Your task to perform on an android device: add a contact Image 0: 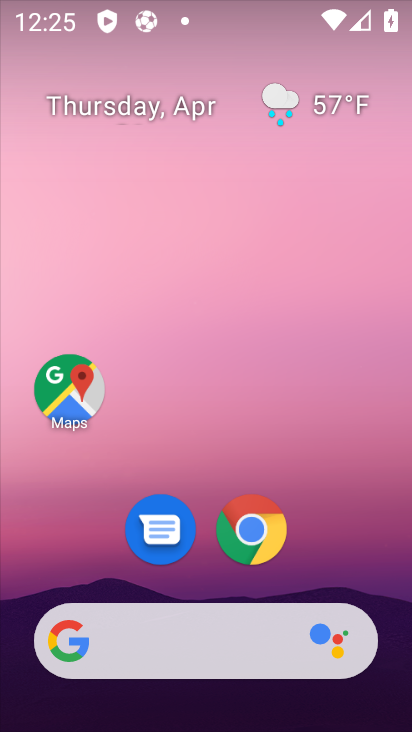
Step 0: click (296, 117)
Your task to perform on an android device: add a contact Image 1: 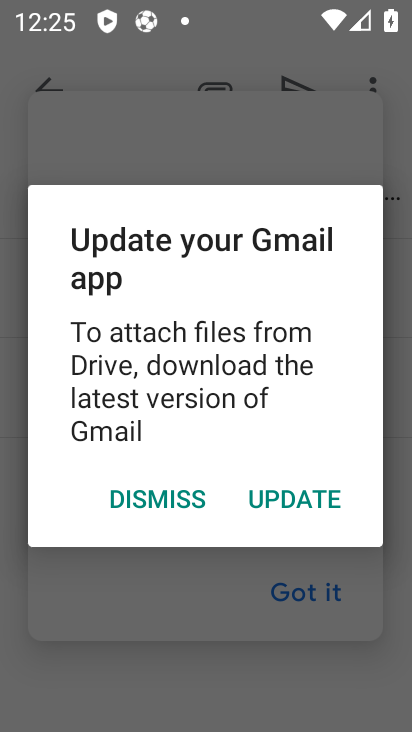
Step 1: press home button
Your task to perform on an android device: add a contact Image 2: 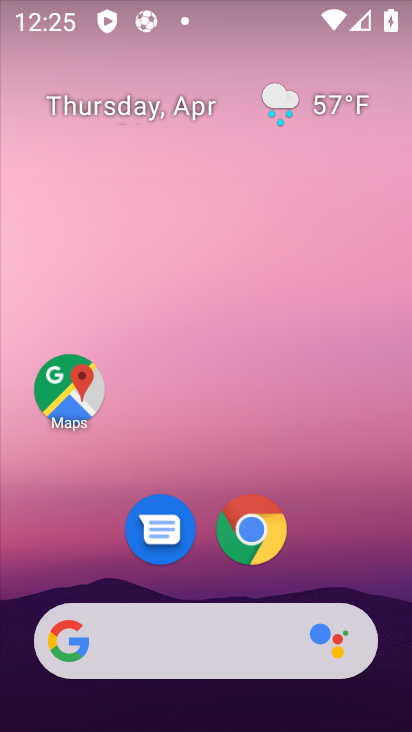
Step 2: drag from (215, 635) to (187, 76)
Your task to perform on an android device: add a contact Image 3: 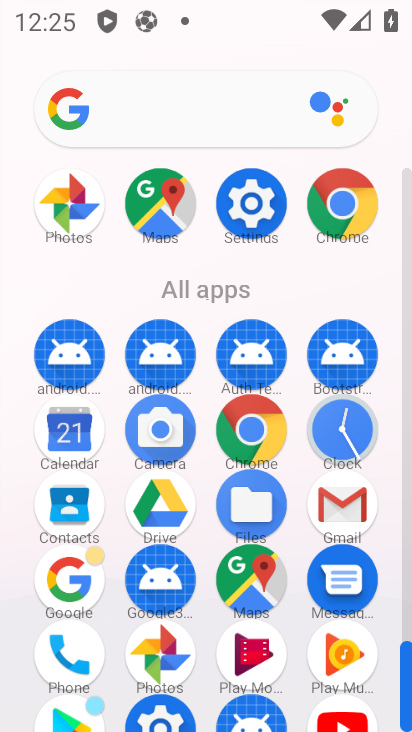
Step 3: drag from (213, 553) to (294, 110)
Your task to perform on an android device: add a contact Image 4: 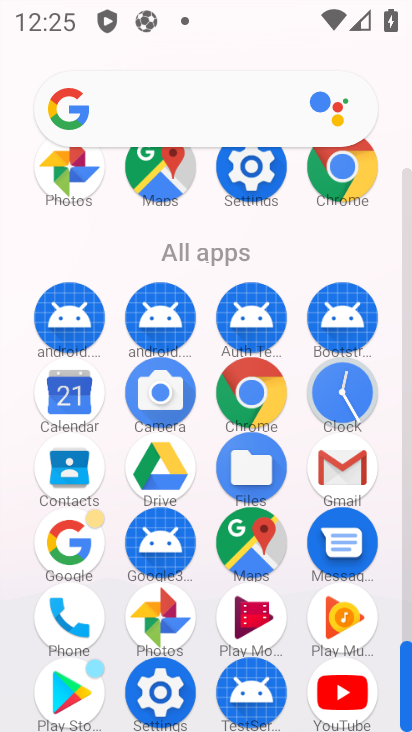
Step 4: click (81, 481)
Your task to perform on an android device: add a contact Image 5: 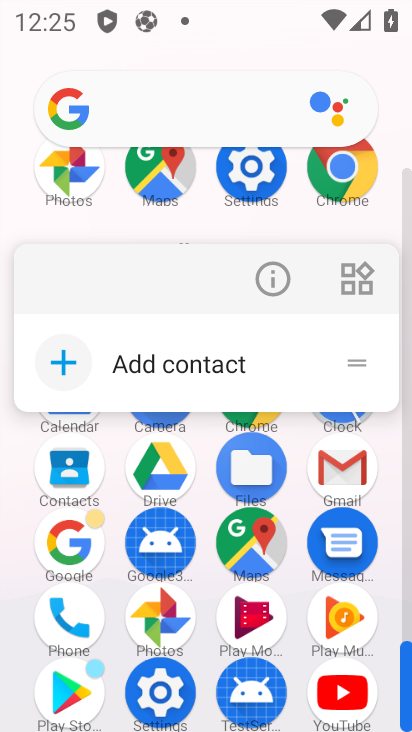
Step 5: click (88, 474)
Your task to perform on an android device: add a contact Image 6: 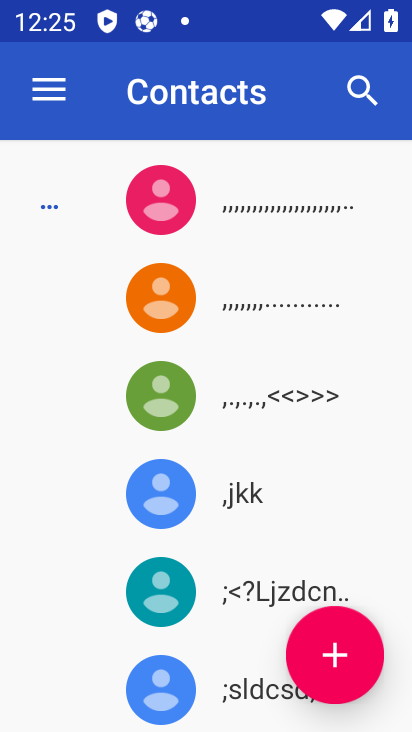
Step 6: click (345, 674)
Your task to perform on an android device: add a contact Image 7: 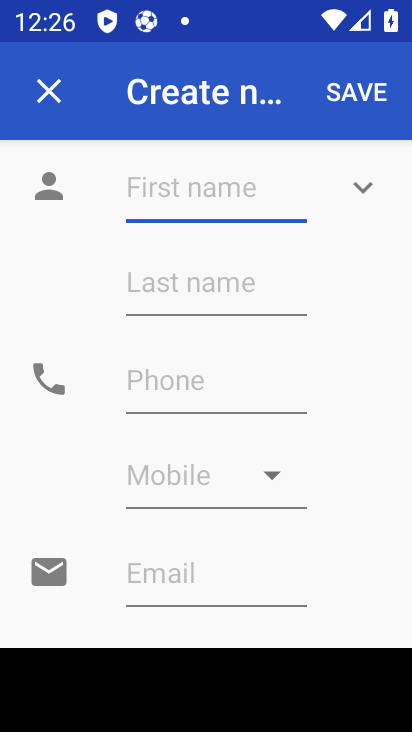
Step 7: type "nkldask"
Your task to perform on an android device: add a contact Image 8: 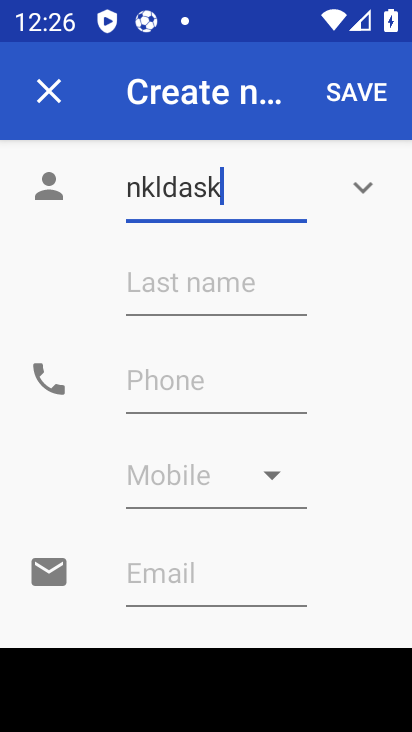
Step 8: click (230, 379)
Your task to perform on an android device: add a contact Image 9: 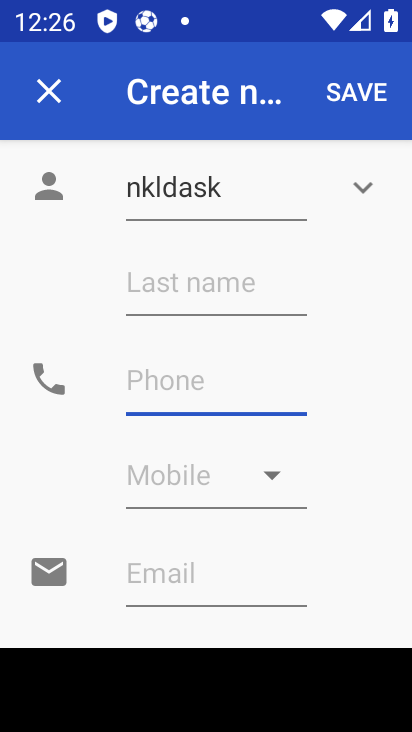
Step 9: type "42749283"
Your task to perform on an android device: add a contact Image 10: 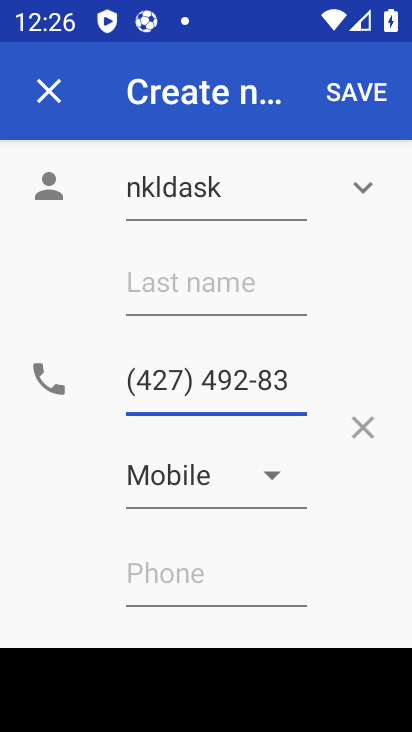
Step 10: click (340, 88)
Your task to perform on an android device: add a contact Image 11: 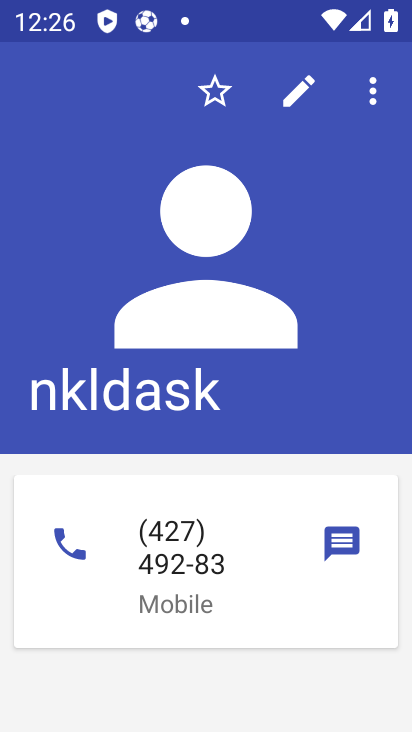
Step 11: task complete